Your task to perform on an android device: Open calendar and show me the fourth week of next month Image 0: 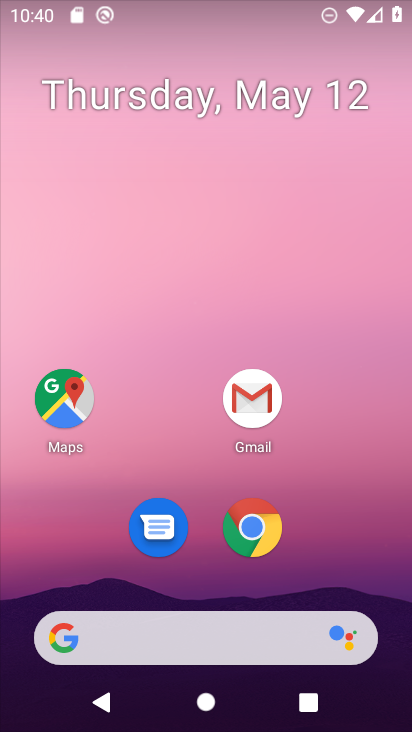
Step 0: drag from (349, 563) to (361, 71)
Your task to perform on an android device: Open calendar and show me the fourth week of next month Image 1: 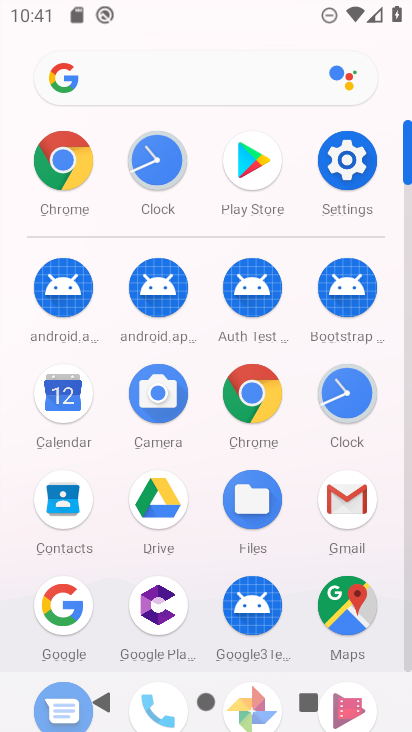
Step 1: click (65, 403)
Your task to perform on an android device: Open calendar and show me the fourth week of next month Image 2: 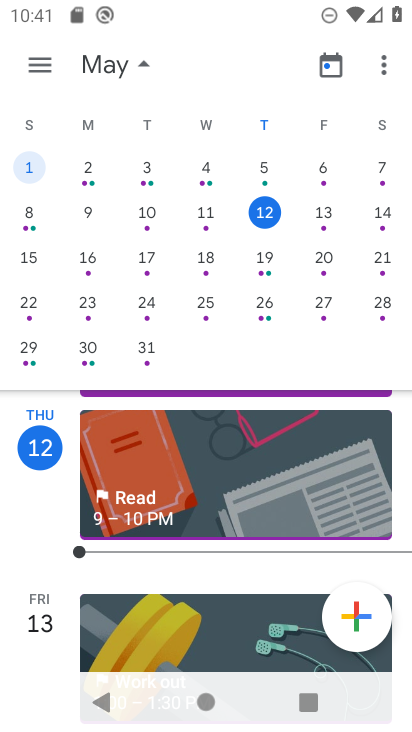
Step 2: drag from (392, 299) to (79, 268)
Your task to perform on an android device: Open calendar and show me the fourth week of next month Image 3: 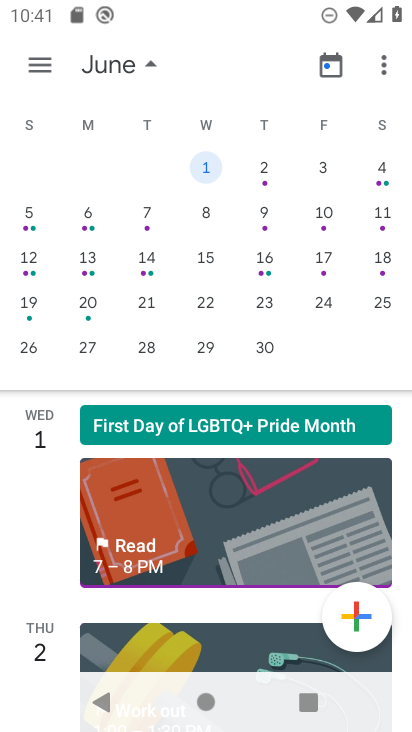
Step 3: click (150, 311)
Your task to perform on an android device: Open calendar and show me the fourth week of next month Image 4: 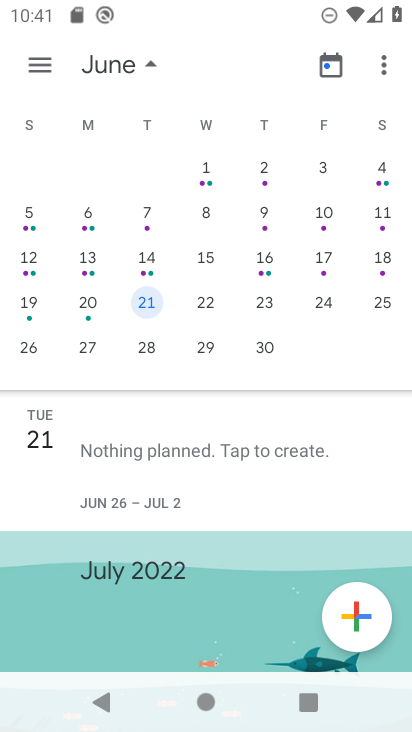
Step 4: task complete